Your task to perform on an android device: Go to CNN.com Image 0: 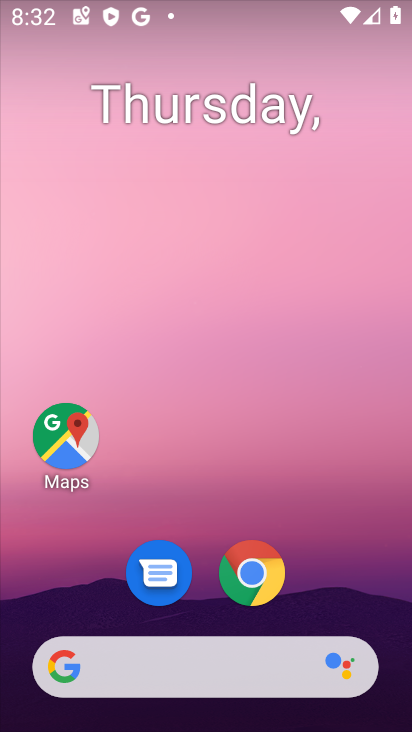
Step 0: drag from (355, 591) to (357, 112)
Your task to perform on an android device: Go to CNN.com Image 1: 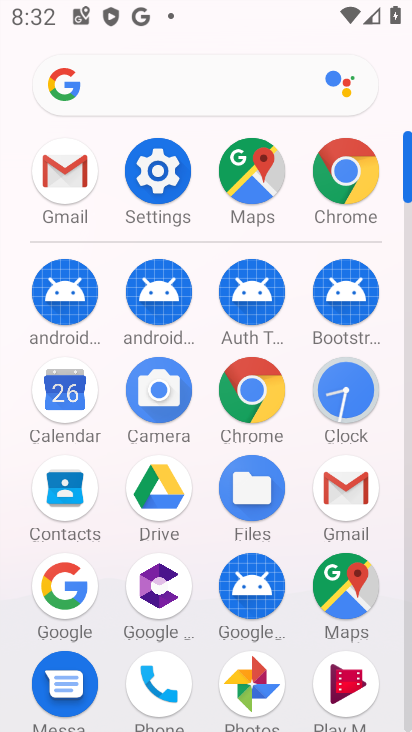
Step 1: click (229, 408)
Your task to perform on an android device: Go to CNN.com Image 2: 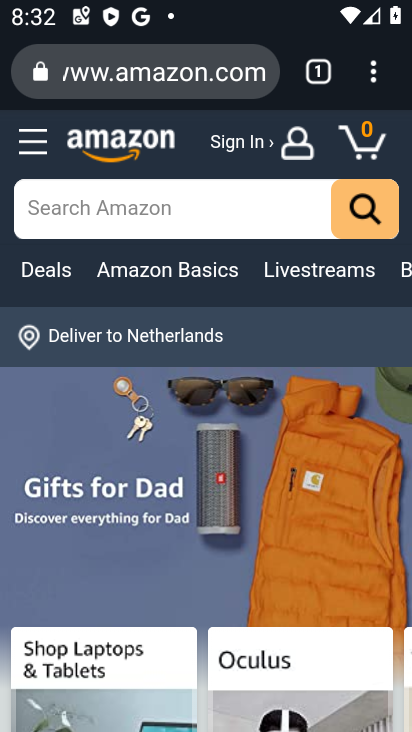
Step 2: click (177, 65)
Your task to perform on an android device: Go to CNN.com Image 3: 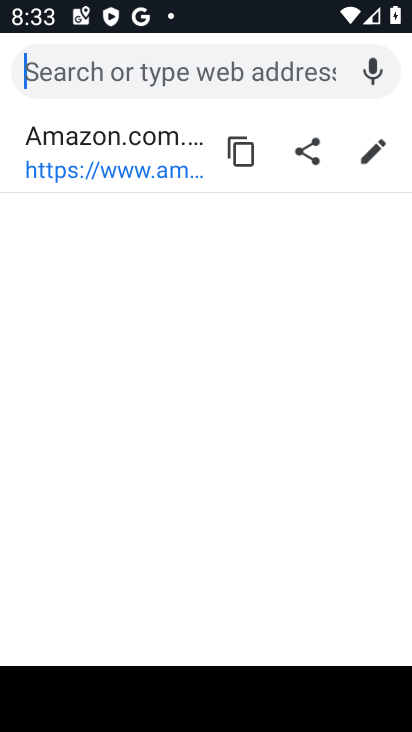
Step 3: type "cnn.com"
Your task to perform on an android device: Go to CNN.com Image 4: 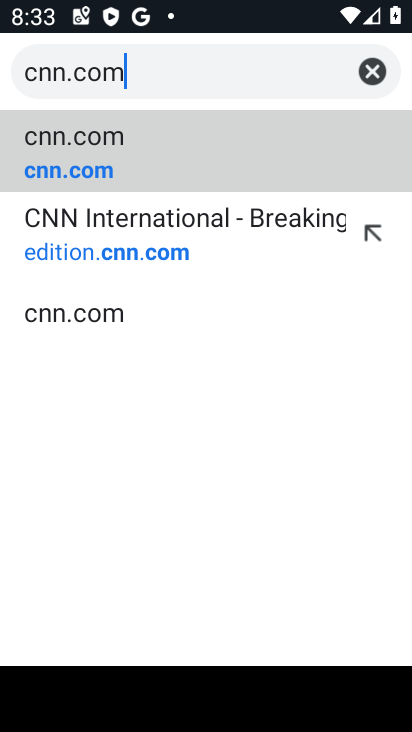
Step 4: click (110, 167)
Your task to perform on an android device: Go to CNN.com Image 5: 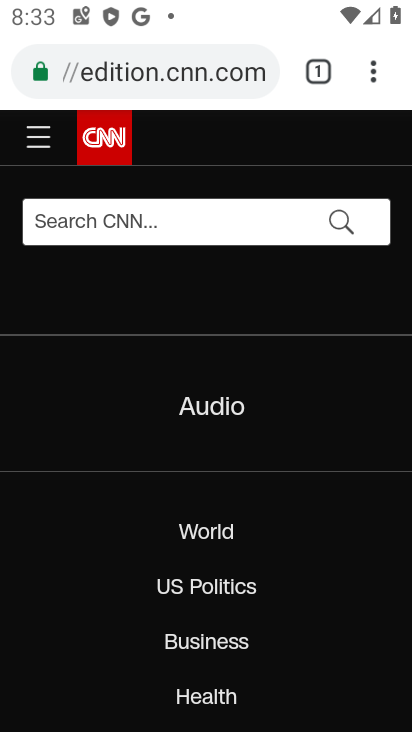
Step 5: task complete